Your task to perform on an android device: delete browsing data in the chrome app Image 0: 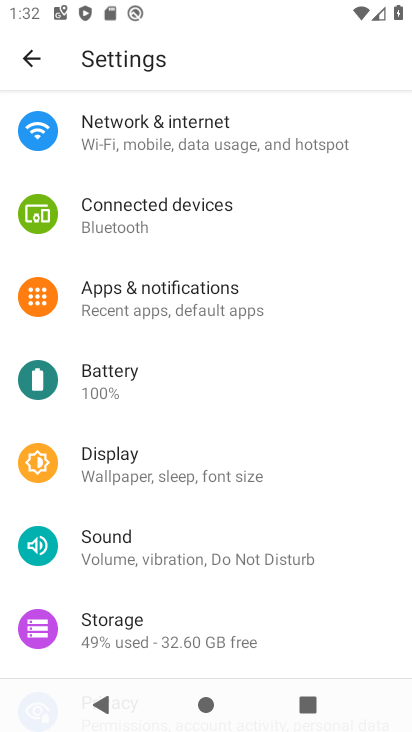
Step 0: press home button
Your task to perform on an android device: delete browsing data in the chrome app Image 1: 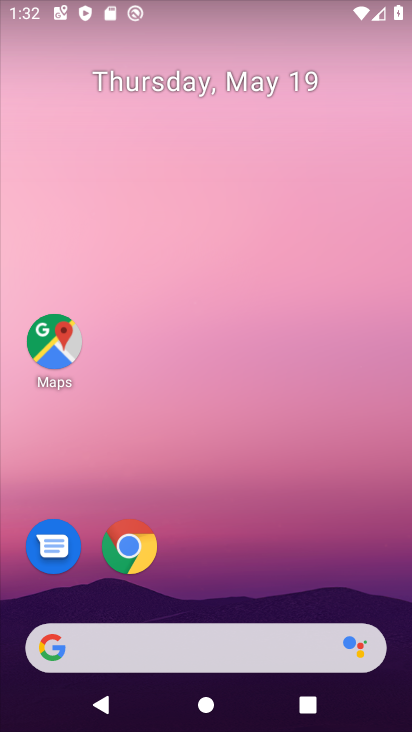
Step 1: click (137, 546)
Your task to perform on an android device: delete browsing data in the chrome app Image 2: 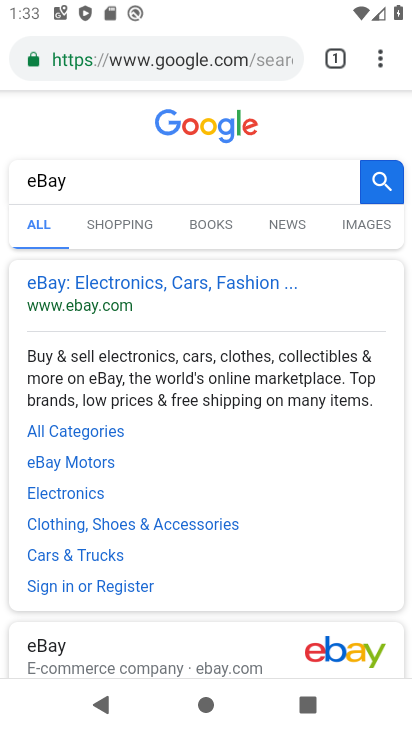
Step 2: click (377, 58)
Your task to perform on an android device: delete browsing data in the chrome app Image 3: 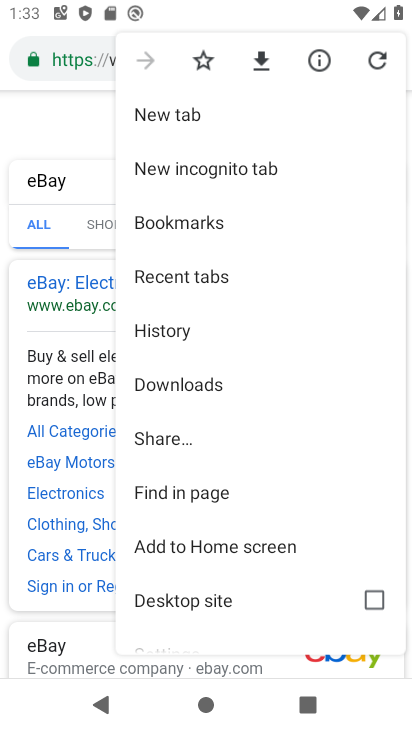
Step 3: click (200, 340)
Your task to perform on an android device: delete browsing data in the chrome app Image 4: 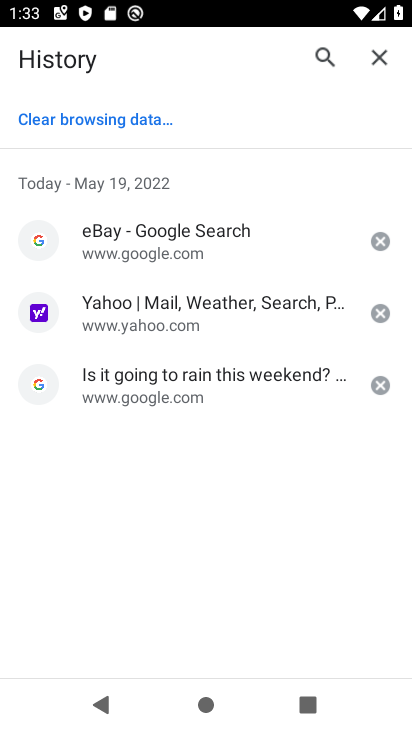
Step 4: click (140, 126)
Your task to perform on an android device: delete browsing data in the chrome app Image 5: 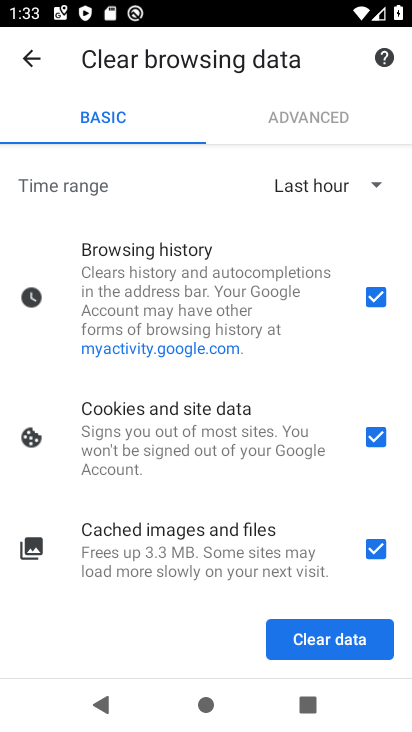
Step 5: click (365, 439)
Your task to perform on an android device: delete browsing data in the chrome app Image 6: 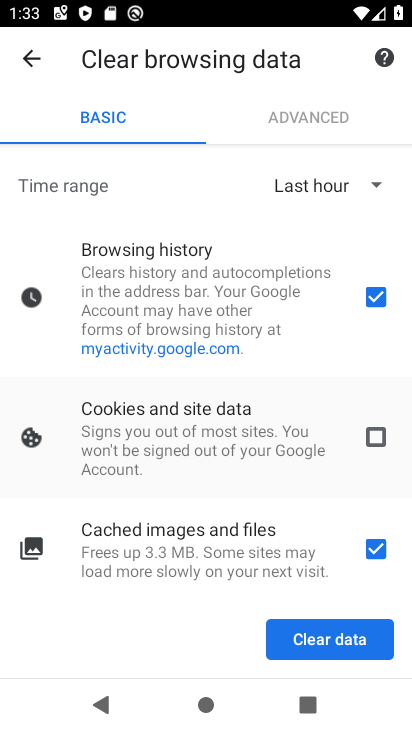
Step 6: click (379, 544)
Your task to perform on an android device: delete browsing data in the chrome app Image 7: 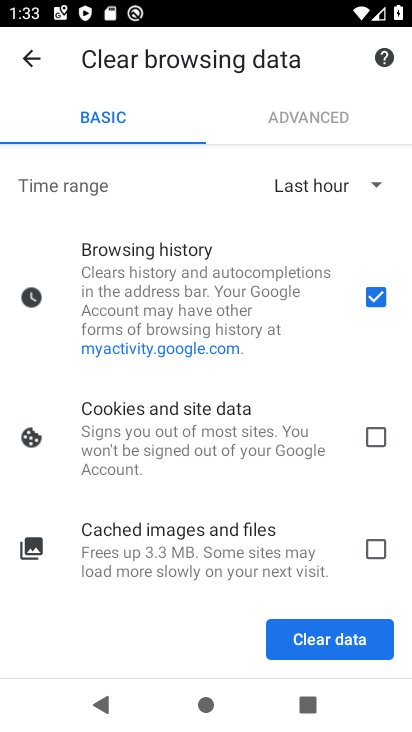
Step 7: click (345, 625)
Your task to perform on an android device: delete browsing data in the chrome app Image 8: 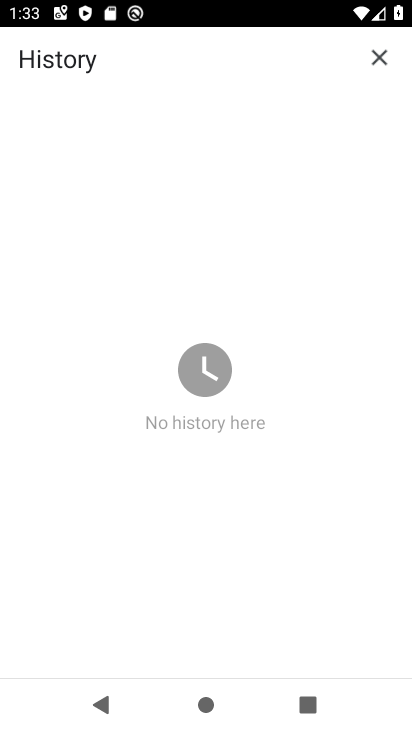
Step 8: task complete